Your task to perform on an android device: delete the emails in spam in the gmail app Image 0: 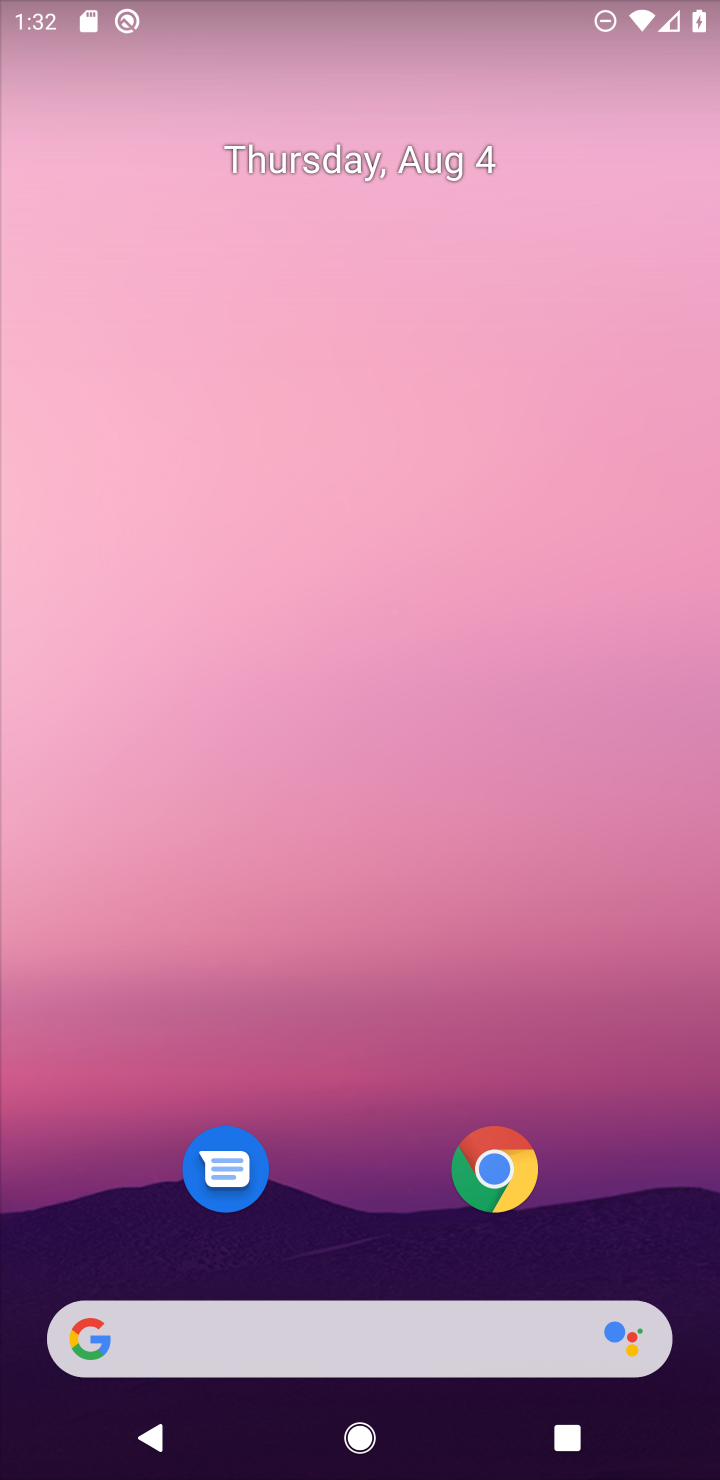
Step 0: drag from (653, 1122) to (716, 100)
Your task to perform on an android device: delete the emails in spam in the gmail app Image 1: 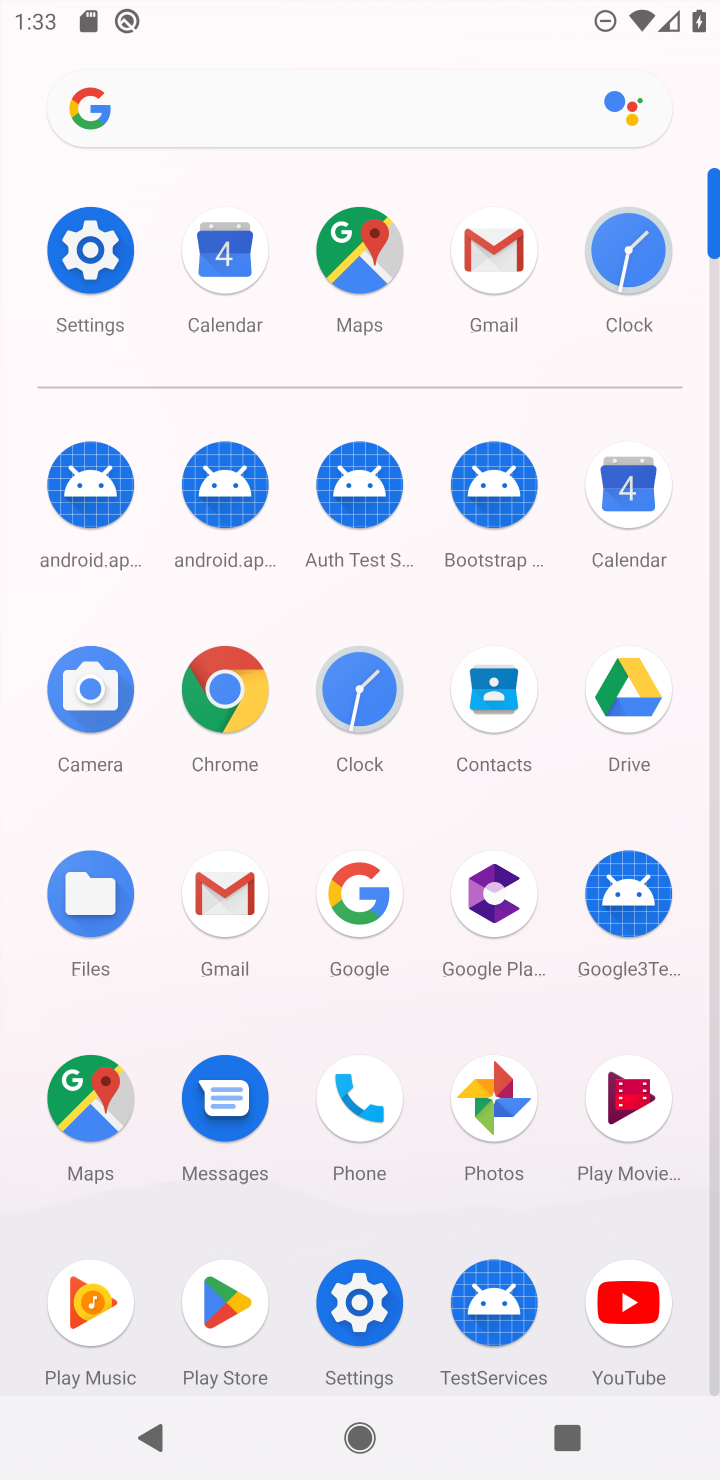
Step 1: click (481, 272)
Your task to perform on an android device: delete the emails in spam in the gmail app Image 2: 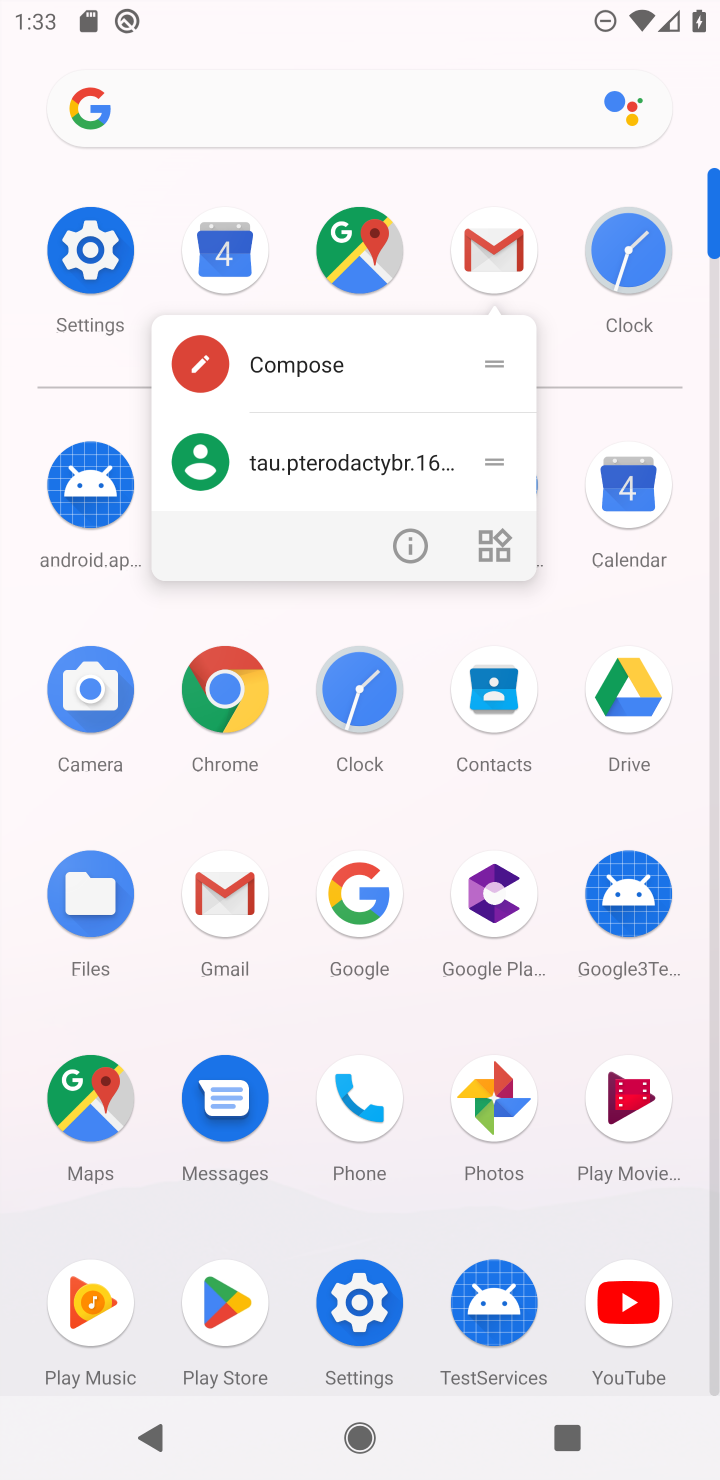
Step 2: click (486, 263)
Your task to perform on an android device: delete the emails in spam in the gmail app Image 3: 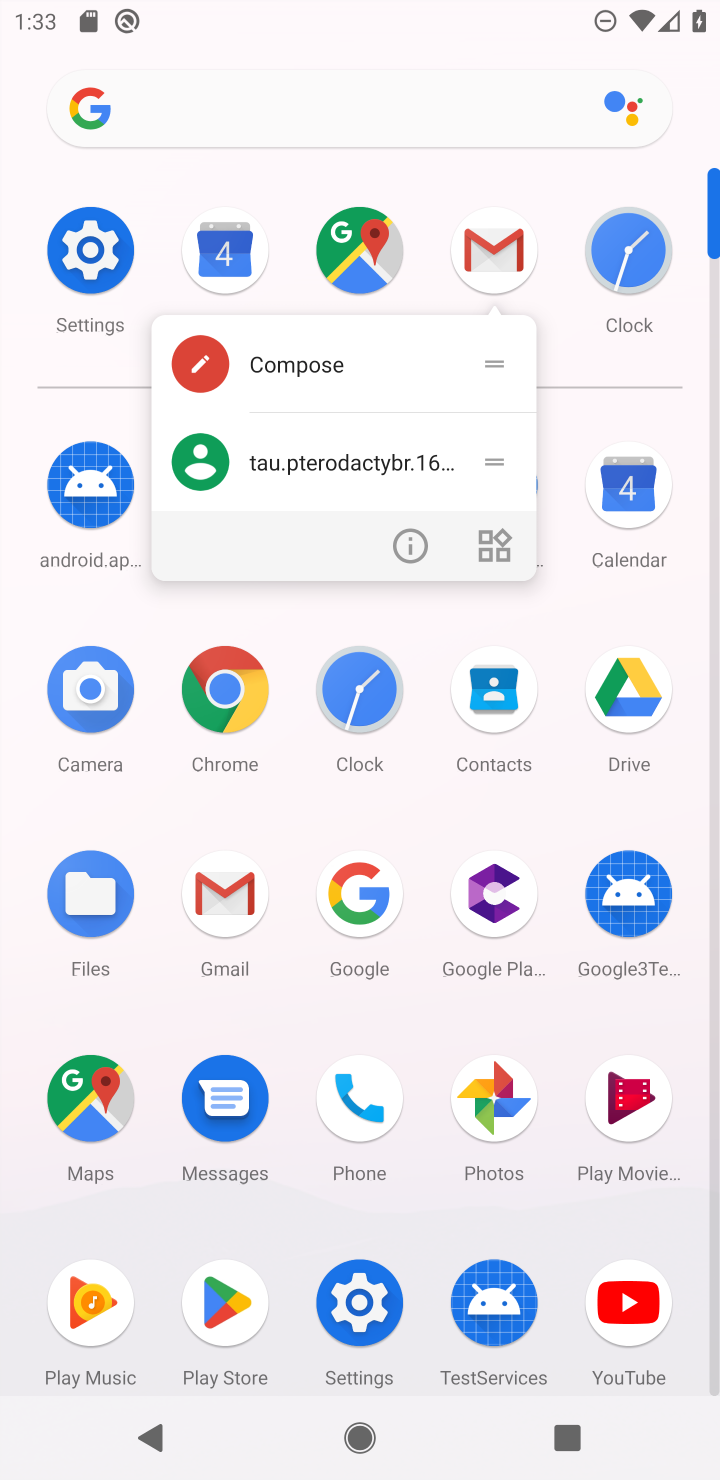
Step 3: click (488, 259)
Your task to perform on an android device: delete the emails in spam in the gmail app Image 4: 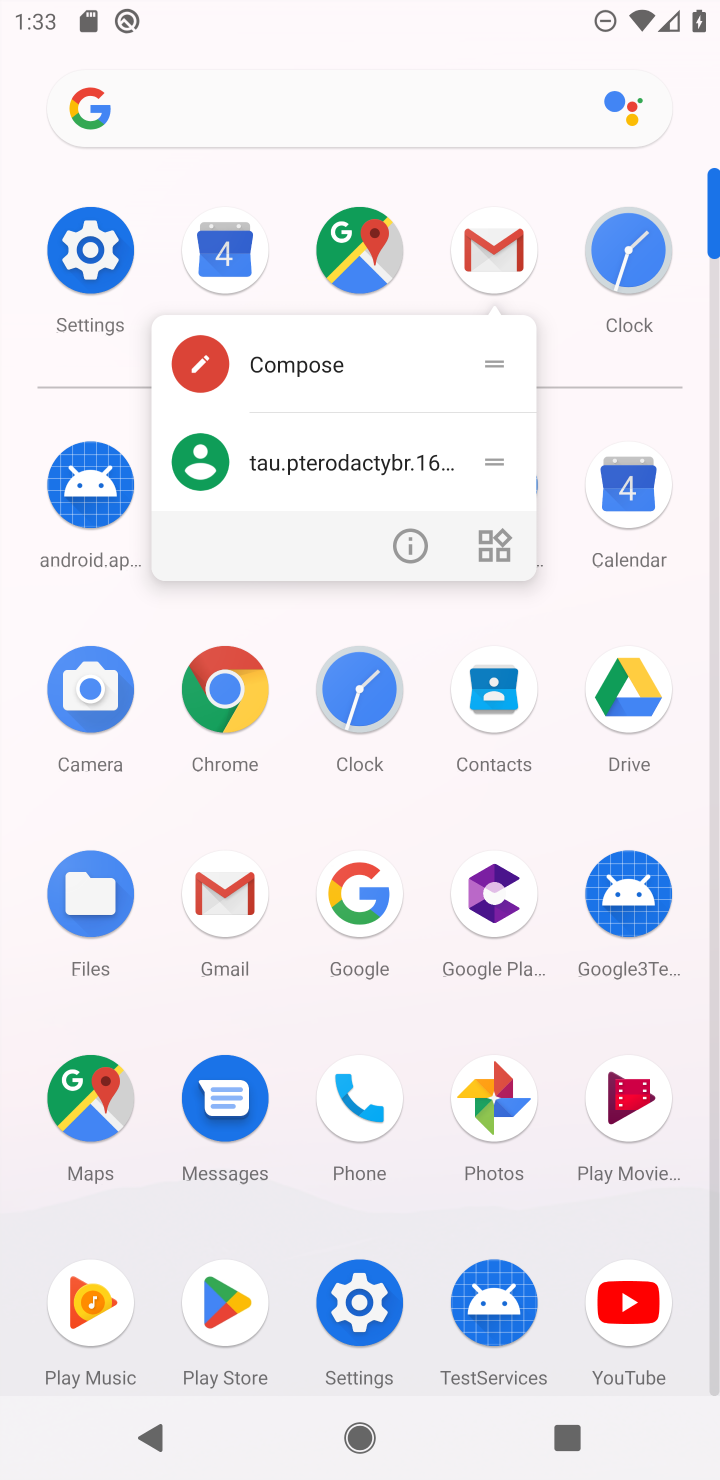
Step 4: click (490, 252)
Your task to perform on an android device: delete the emails in spam in the gmail app Image 5: 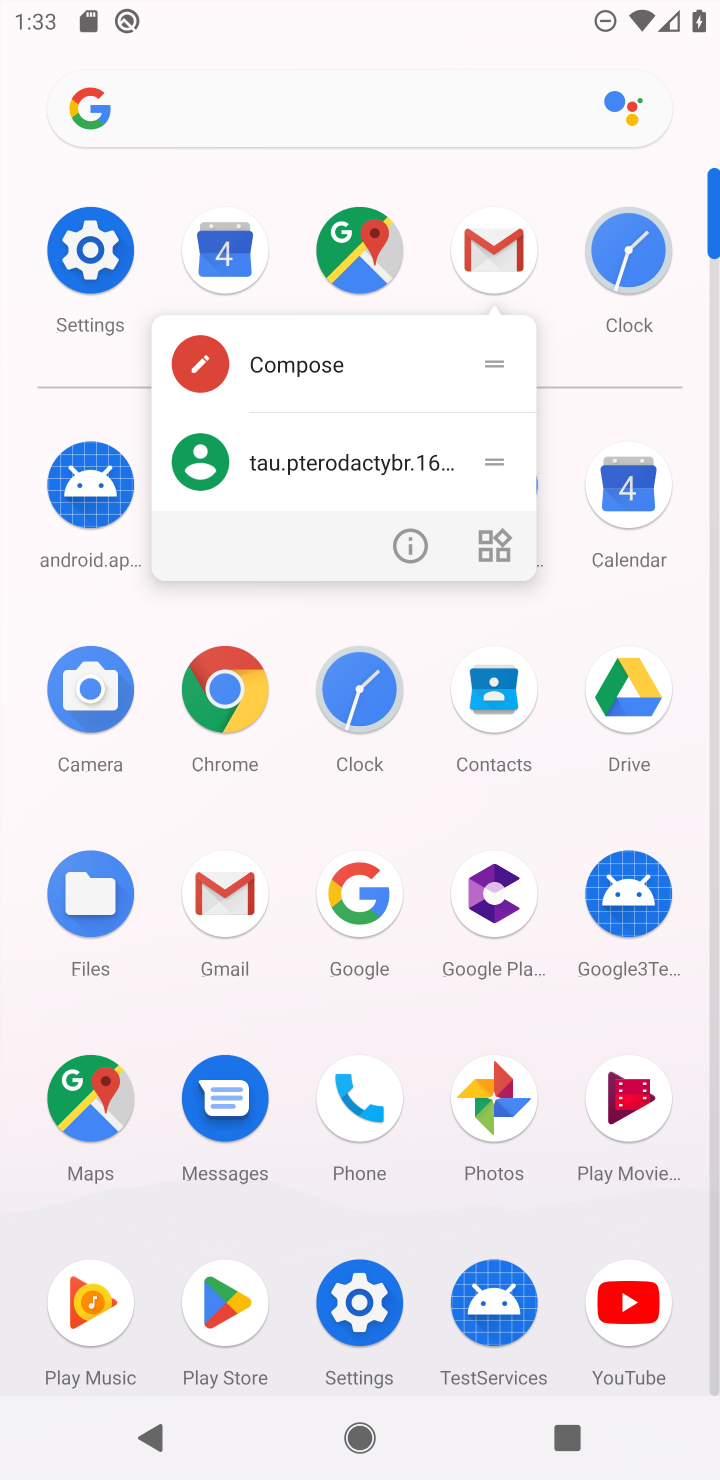
Step 5: click (490, 252)
Your task to perform on an android device: delete the emails in spam in the gmail app Image 6: 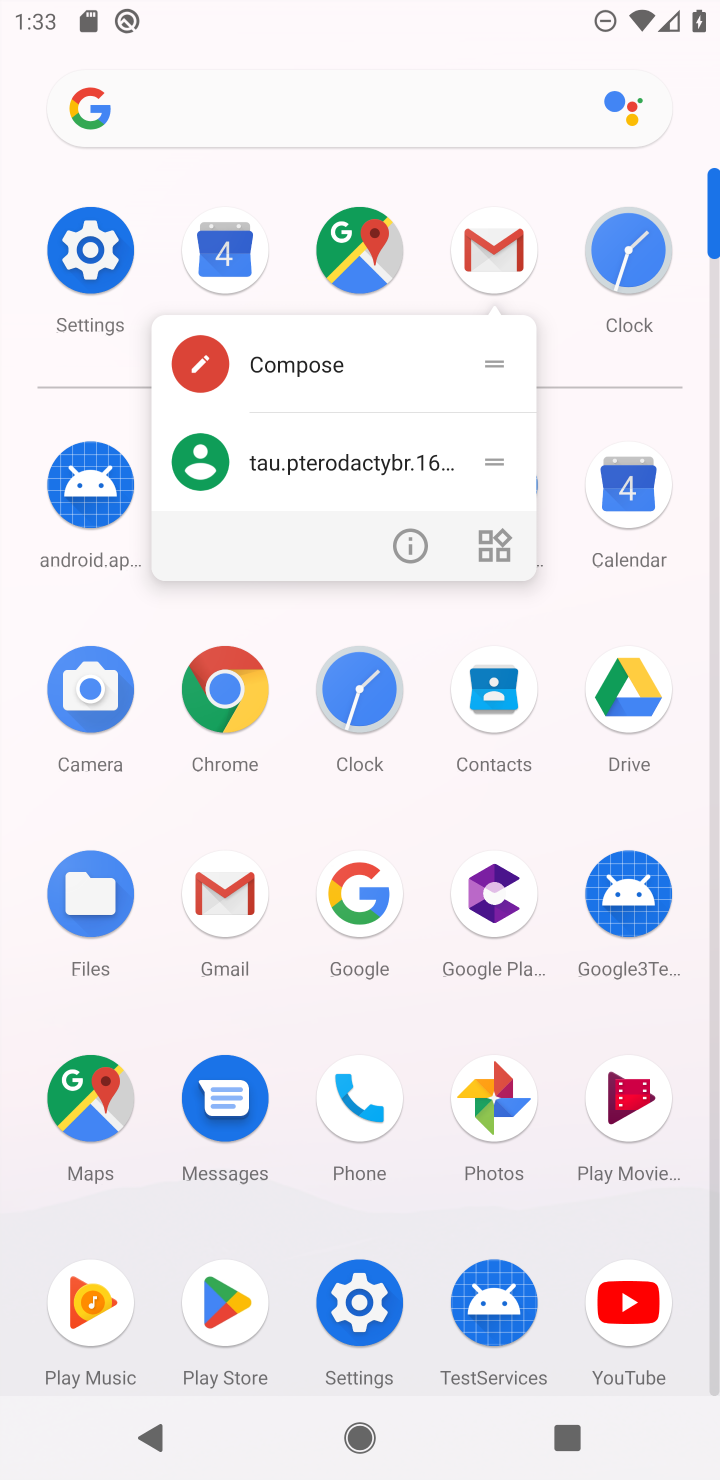
Step 6: click (490, 252)
Your task to perform on an android device: delete the emails in spam in the gmail app Image 7: 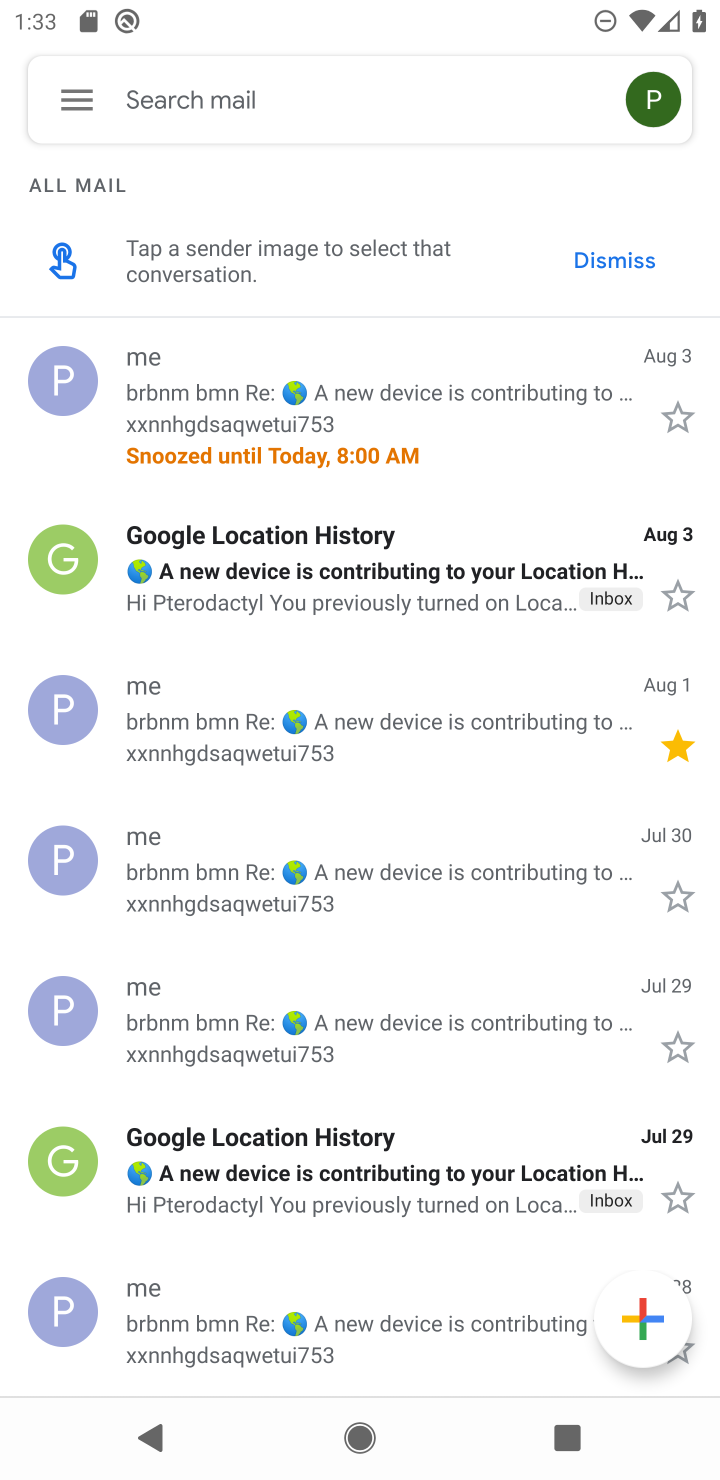
Step 7: click (84, 107)
Your task to perform on an android device: delete the emails in spam in the gmail app Image 8: 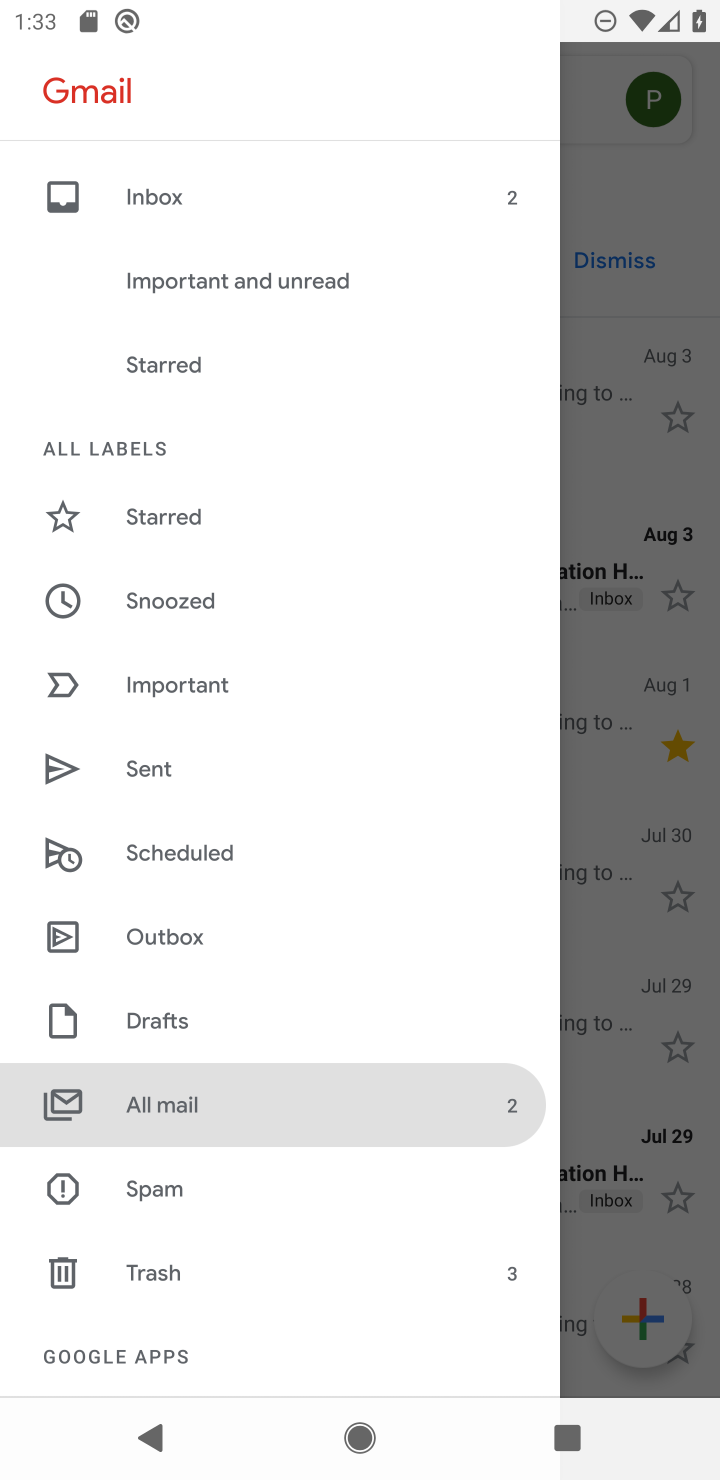
Step 8: click (165, 1186)
Your task to perform on an android device: delete the emails in spam in the gmail app Image 9: 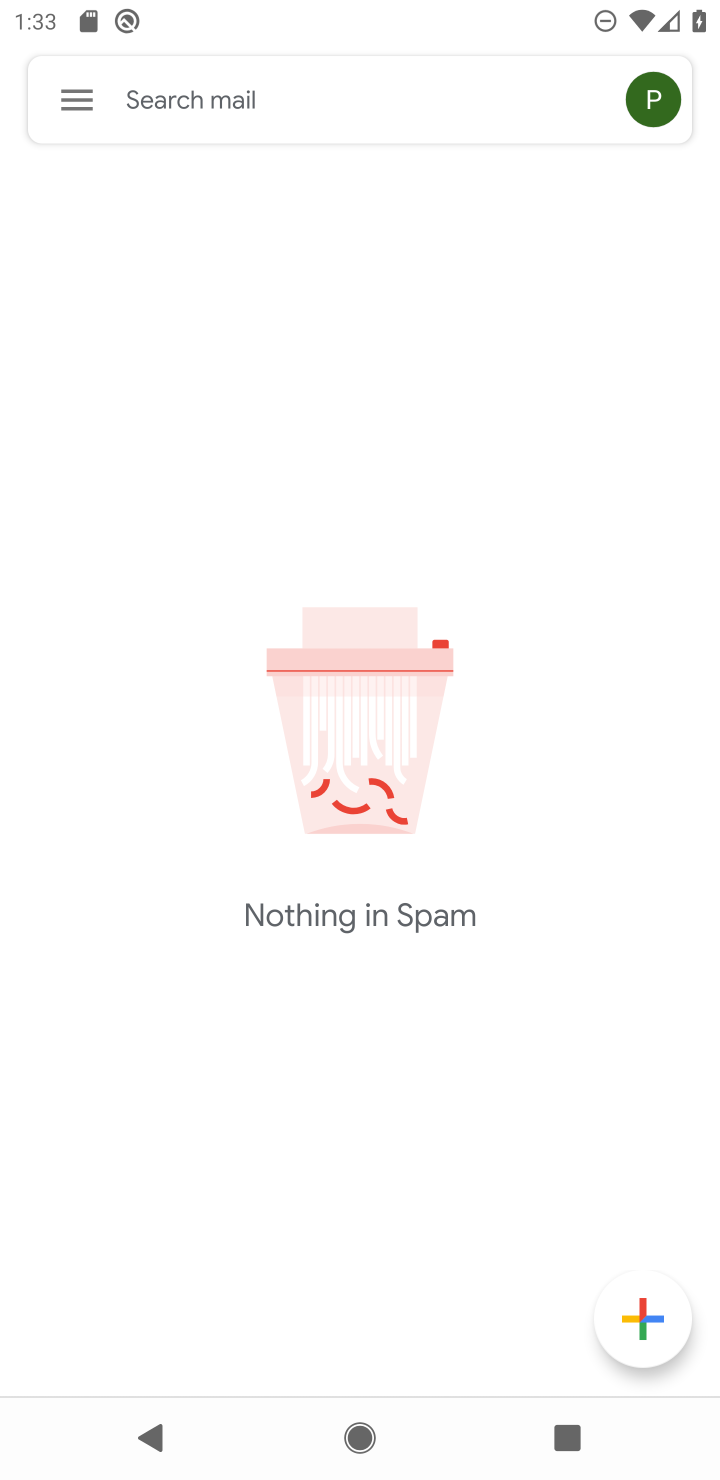
Step 9: task complete